Your task to perform on an android device: Open calendar and show me the third week of next month Image 0: 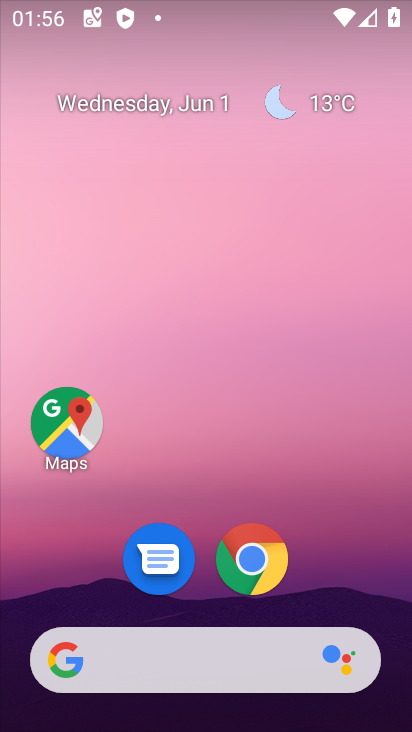
Step 0: drag from (387, 700) to (300, 125)
Your task to perform on an android device: Open calendar and show me the third week of next month Image 1: 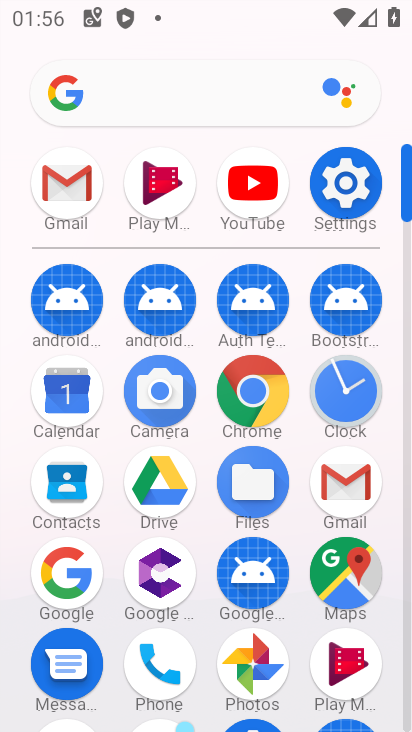
Step 1: click (68, 398)
Your task to perform on an android device: Open calendar and show me the third week of next month Image 2: 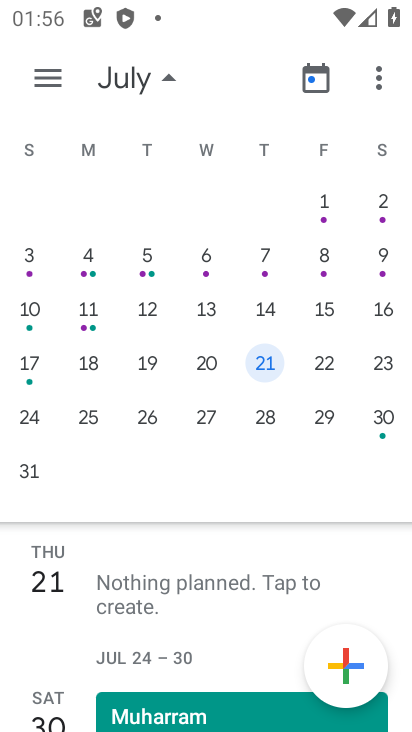
Step 2: drag from (400, 310) to (24, 341)
Your task to perform on an android device: Open calendar and show me the third week of next month Image 3: 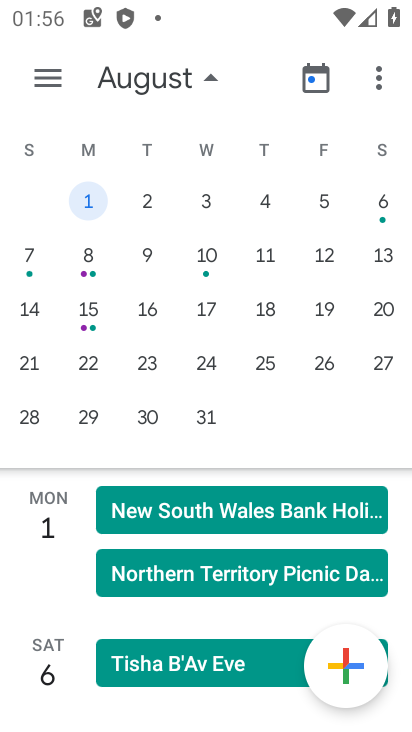
Step 3: drag from (23, 309) to (364, 296)
Your task to perform on an android device: Open calendar and show me the third week of next month Image 4: 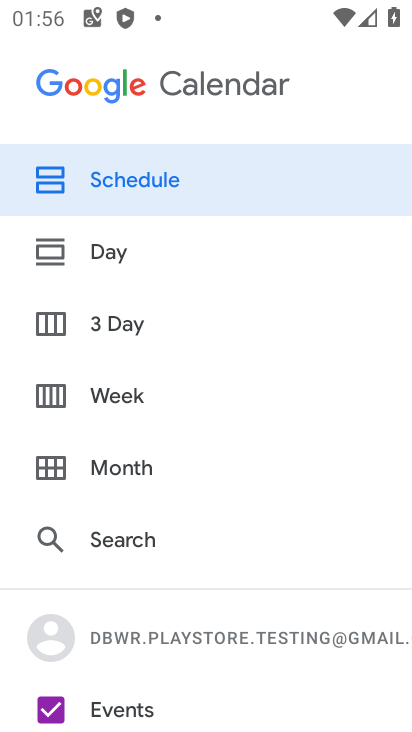
Step 4: press back button
Your task to perform on an android device: Open calendar and show me the third week of next month Image 5: 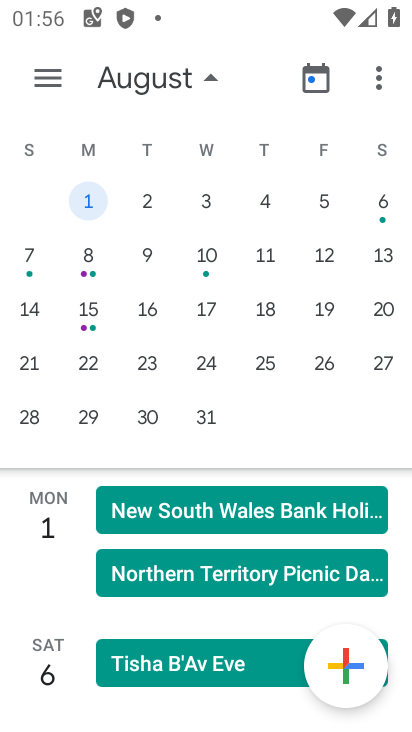
Step 5: drag from (60, 216) to (404, 220)
Your task to perform on an android device: Open calendar and show me the third week of next month Image 6: 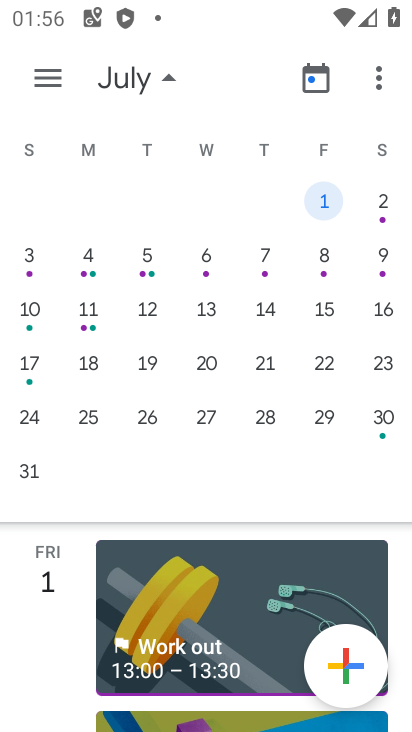
Step 6: click (259, 305)
Your task to perform on an android device: Open calendar and show me the third week of next month Image 7: 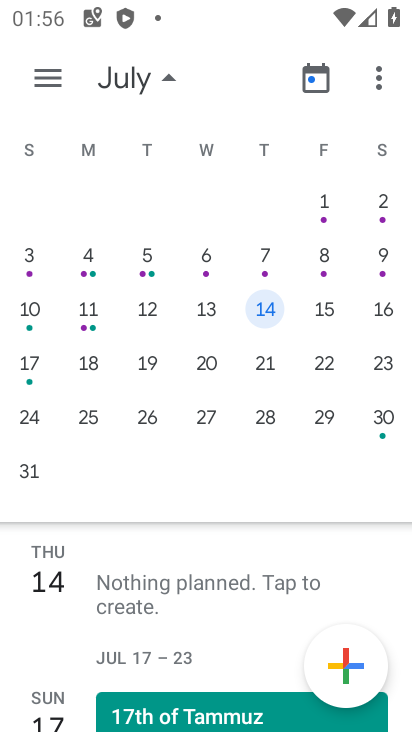
Step 7: click (41, 80)
Your task to perform on an android device: Open calendar and show me the third week of next month Image 8: 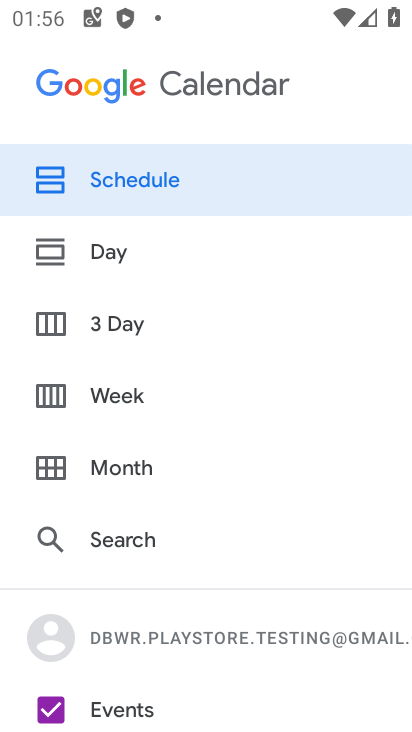
Step 8: click (111, 398)
Your task to perform on an android device: Open calendar and show me the third week of next month Image 9: 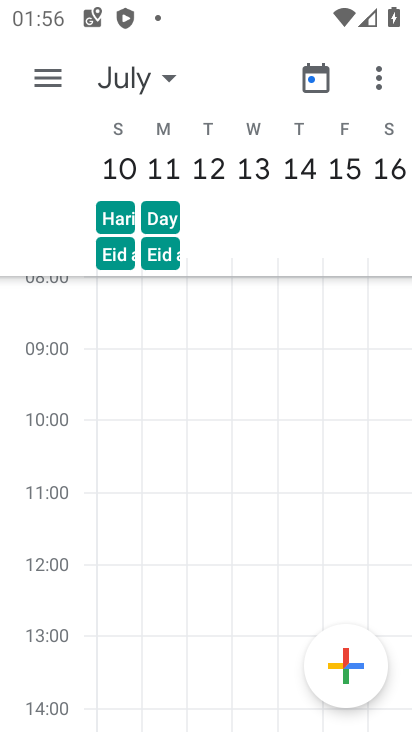
Step 9: task complete